Your task to perform on an android device: Play the last video I watched on Youtube Image 0: 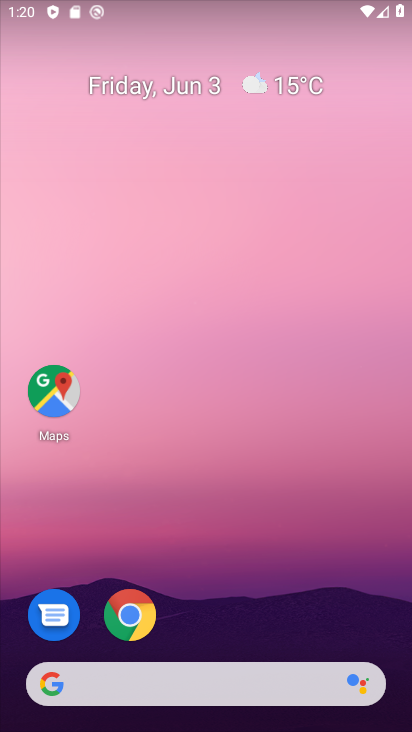
Step 0: drag from (409, 291) to (411, 33)
Your task to perform on an android device: Play the last video I watched on Youtube Image 1: 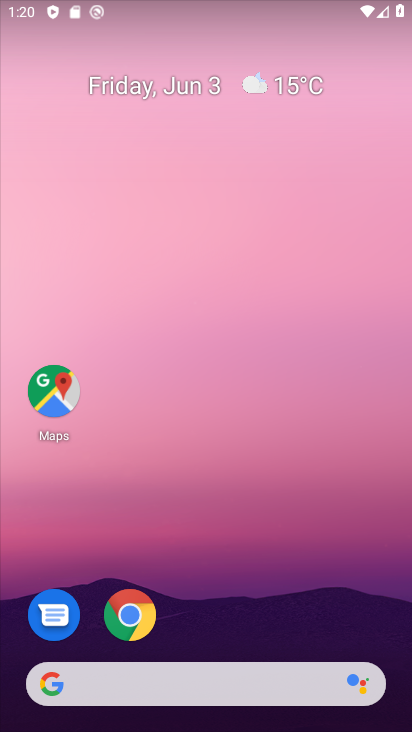
Step 1: drag from (210, 612) to (336, 13)
Your task to perform on an android device: Play the last video I watched on Youtube Image 2: 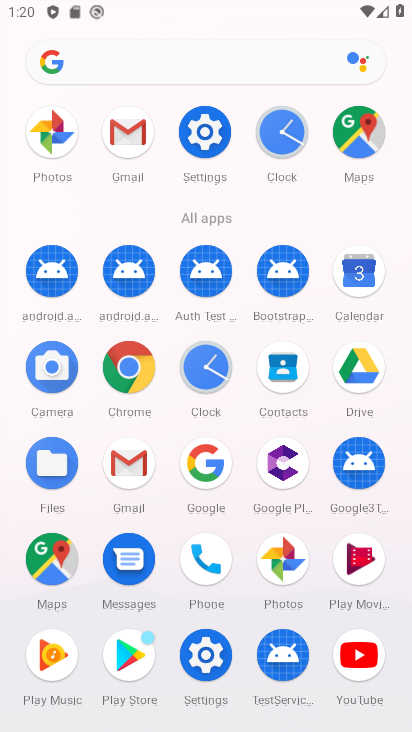
Step 2: click (362, 655)
Your task to perform on an android device: Play the last video I watched on Youtube Image 3: 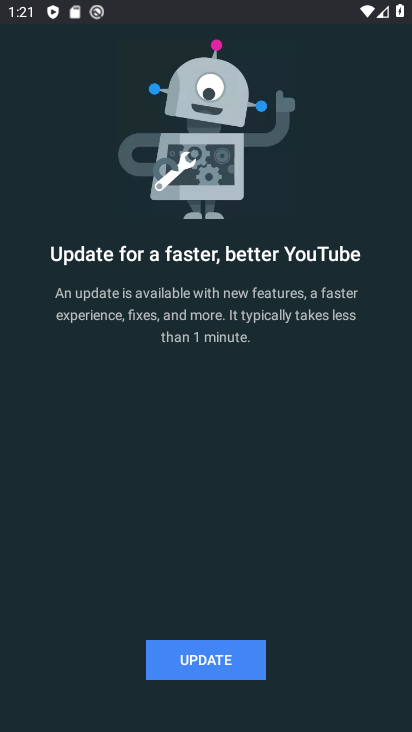
Step 3: click (235, 654)
Your task to perform on an android device: Play the last video I watched on Youtube Image 4: 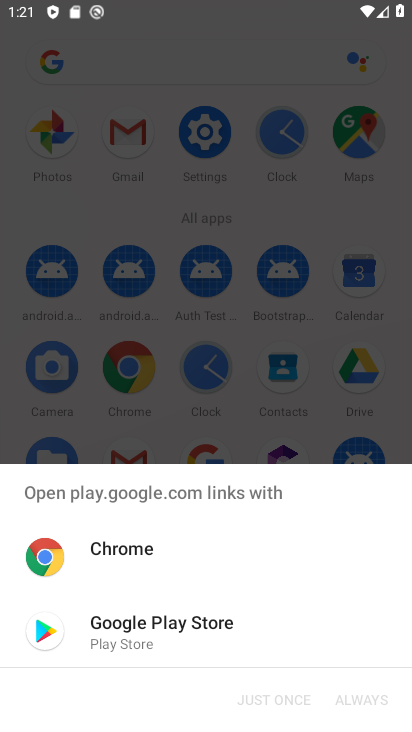
Step 4: click (184, 643)
Your task to perform on an android device: Play the last video I watched on Youtube Image 5: 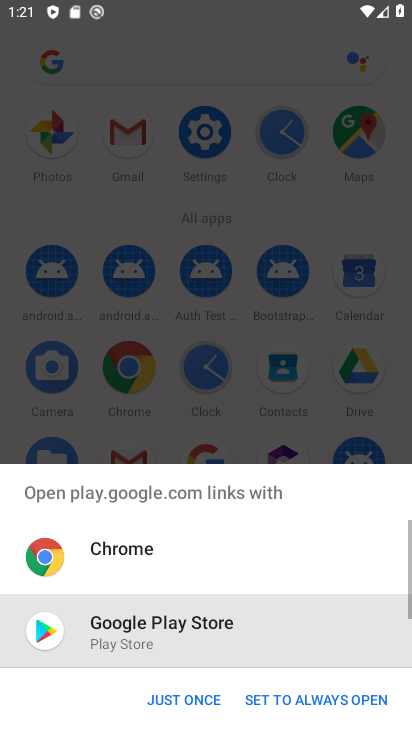
Step 5: click (196, 702)
Your task to perform on an android device: Play the last video I watched on Youtube Image 6: 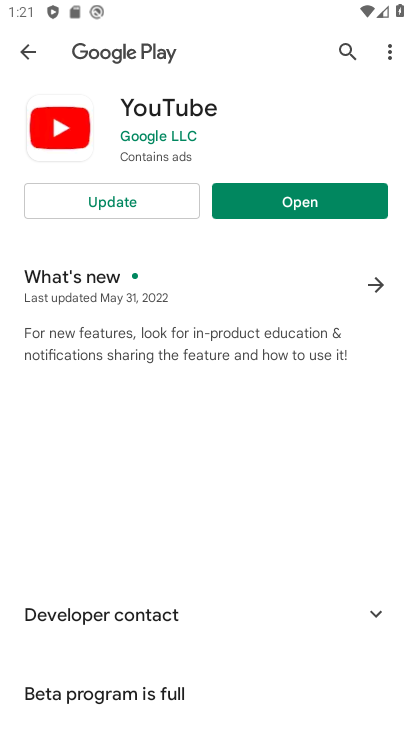
Step 6: click (130, 216)
Your task to perform on an android device: Play the last video I watched on Youtube Image 7: 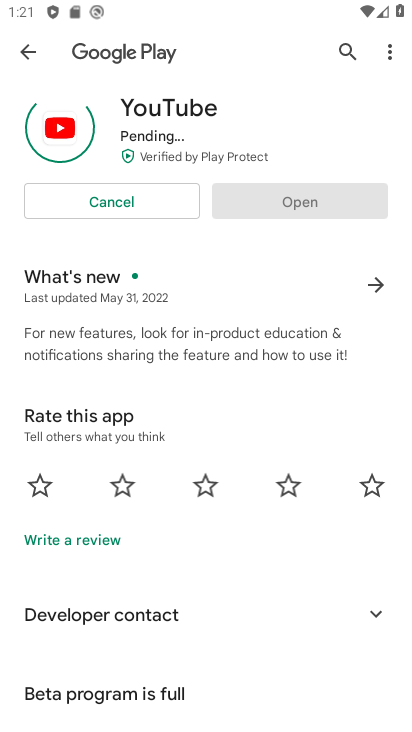
Step 7: task complete